Your task to perform on an android device: change timer sound Image 0: 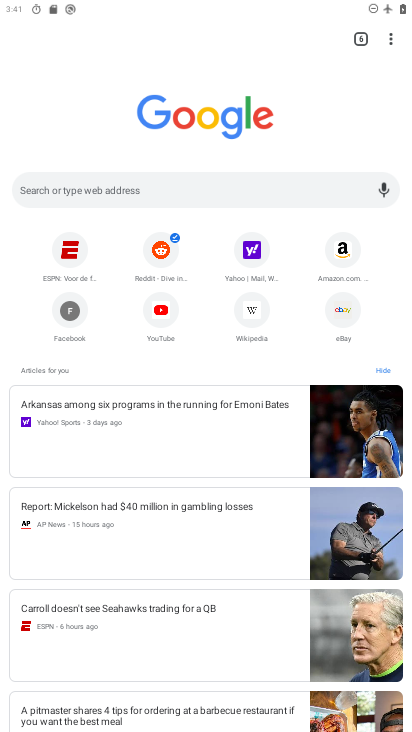
Step 0: press home button
Your task to perform on an android device: change timer sound Image 1: 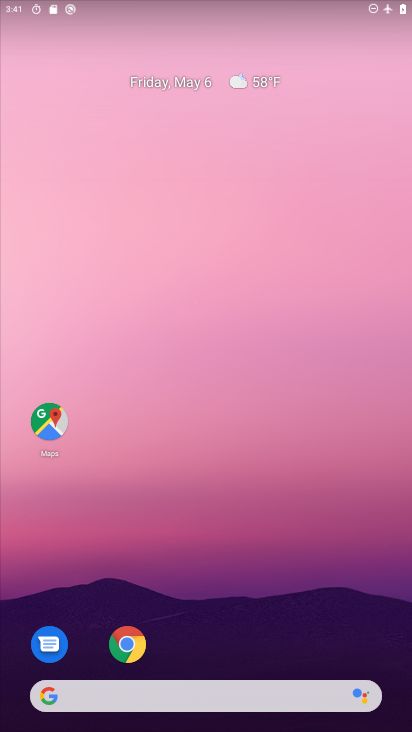
Step 1: drag from (207, 730) to (204, 251)
Your task to perform on an android device: change timer sound Image 2: 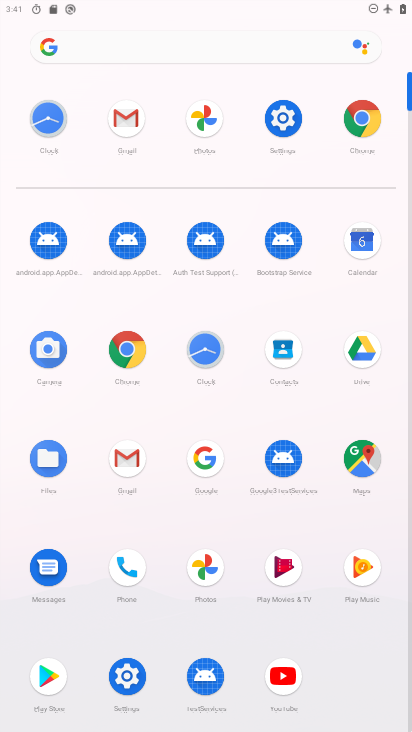
Step 2: click (205, 356)
Your task to perform on an android device: change timer sound Image 3: 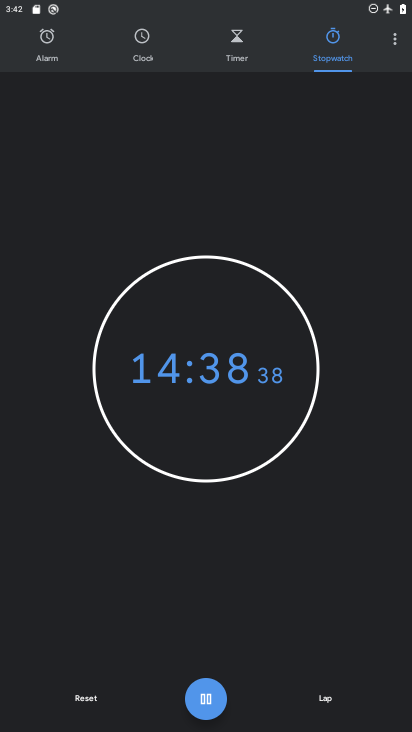
Step 3: click (396, 41)
Your task to perform on an android device: change timer sound Image 4: 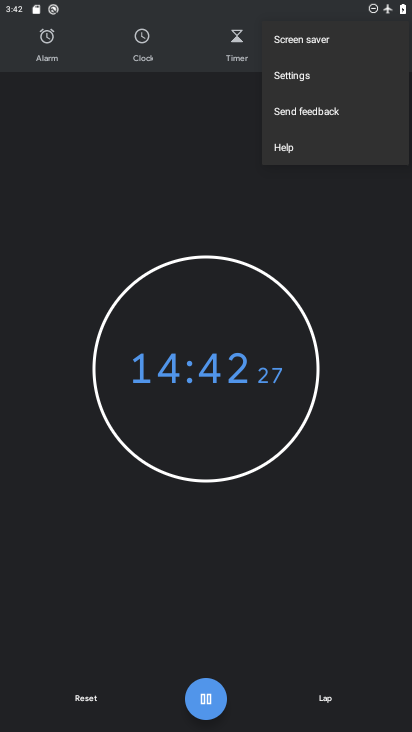
Step 4: click (296, 78)
Your task to perform on an android device: change timer sound Image 5: 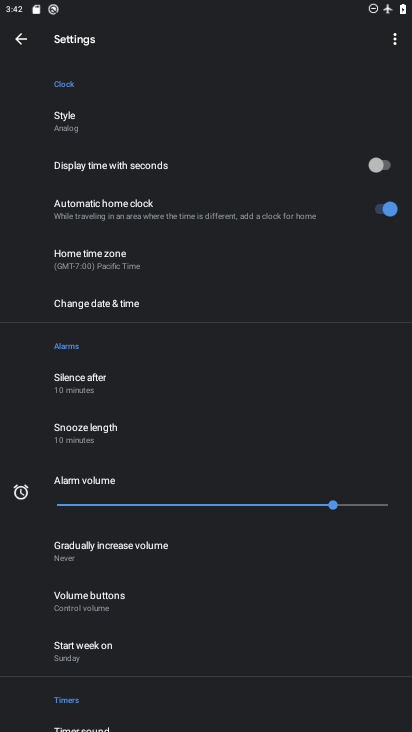
Step 5: drag from (213, 673) to (204, 443)
Your task to perform on an android device: change timer sound Image 6: 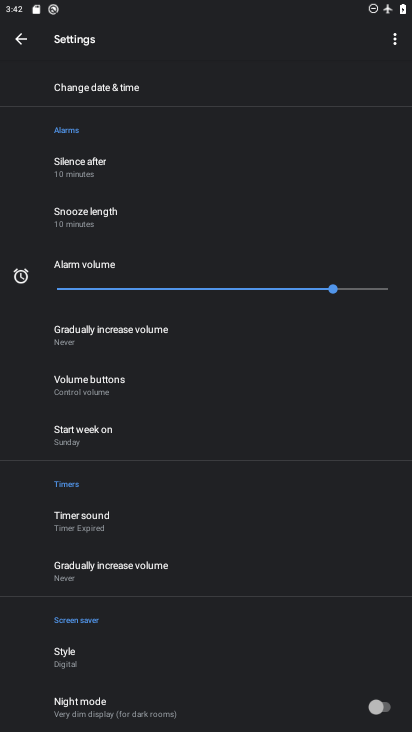
Step 6: click (85, 515)
Your task to perform on an android device: change timer sound Image 7: 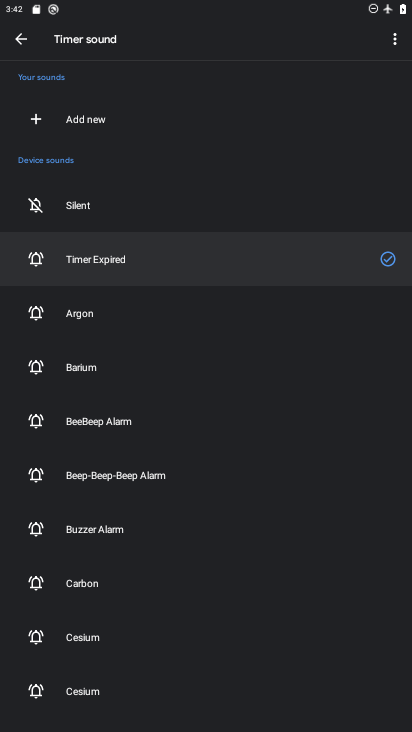
Step 7: click (89, 420)
Your task to perform on an android device: change timer sound Image 8: 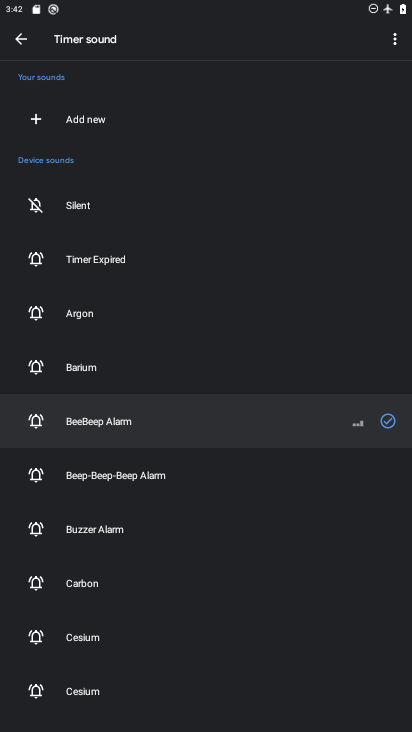
Step 8: task complete